Your task to perform on an android device: stop showing notifications on the lock screen Image 0: 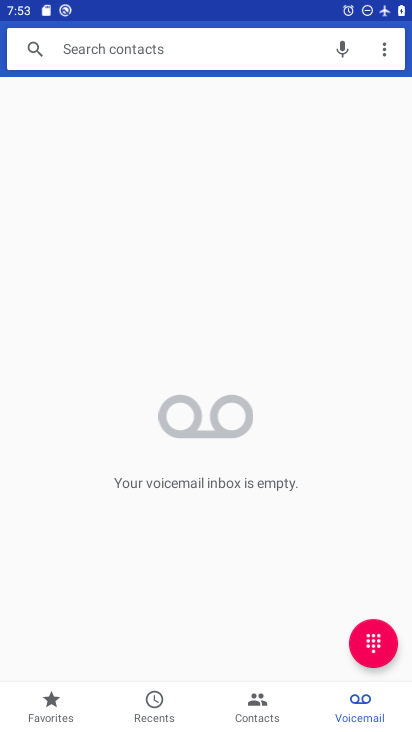
Step 0: press home button
Your task to perform on an android device: stop showing notifications on the lock screen Image 1: 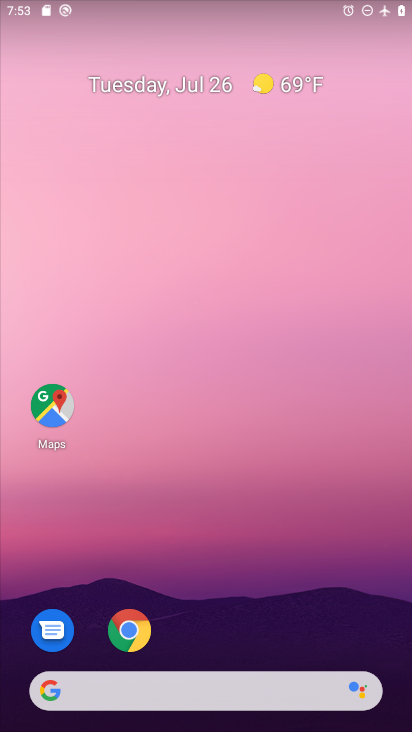
Step 1: drag from (265, 616) to (249, 228)
Your task to perform on an android device: stop showing notifications on the lock screen Image 2: 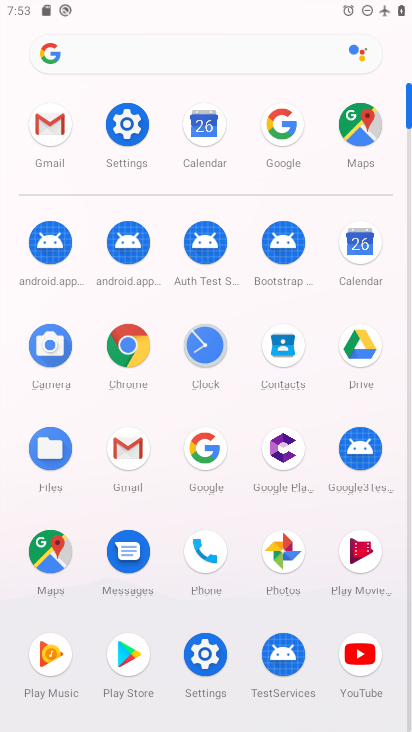
Step 2: click (205, 670)
Your task to perform on an android device: stop showing notifications on the lock screen Image 3: 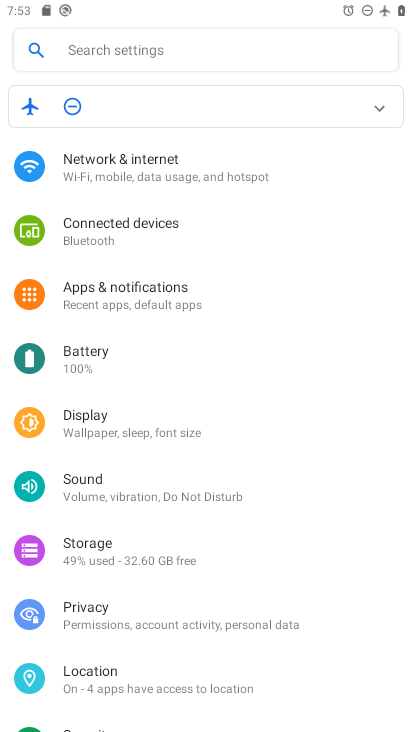
Step 3: click (158, 300)
Your task to perform on an android device: stop showing notifications on the lock screen Image 4: 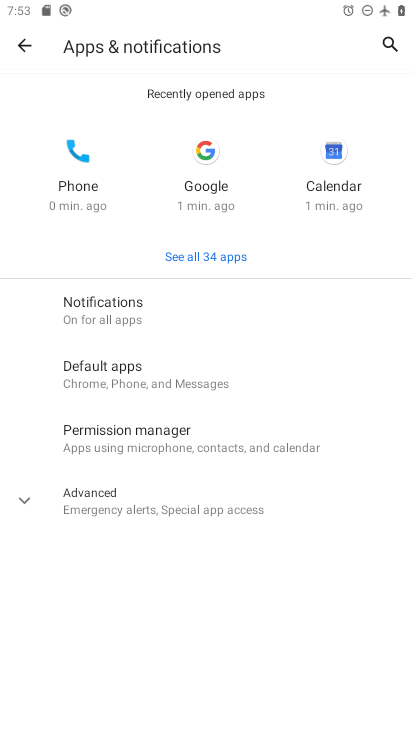
Step 4: click (159, 321)
Your task to perform on an android device: stop showing notifications on the lock screen Image 5: 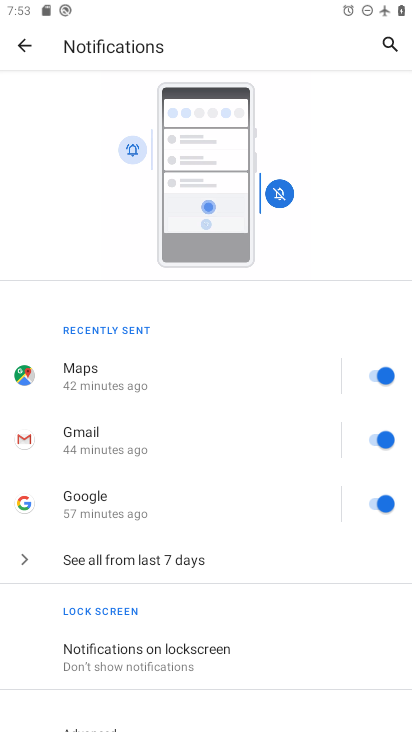
Step 5: click (152, 662)
Your task to perform on an android device: stop showing notifications on the lock screen Image 6: 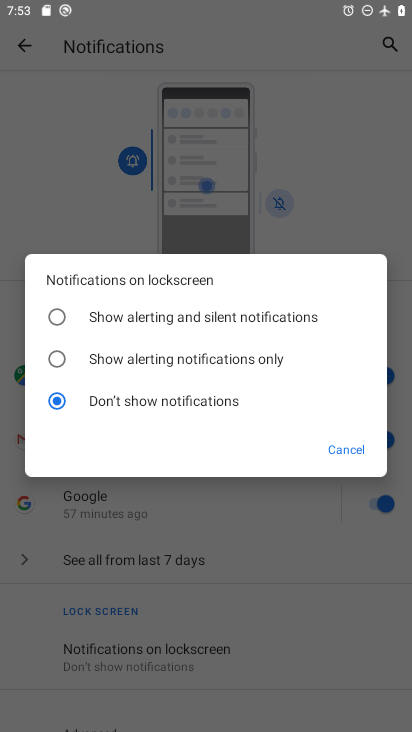
Step 6: click (158, 397)
Your task to perform on an android device: stop showing notifications on the lock screen Image 7: 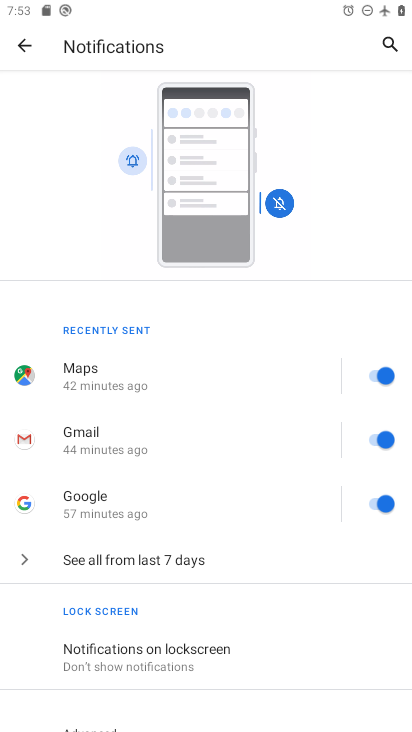
Step 7: task complete